Your task to perform on an android device: Turn off the flashlight Image 0: 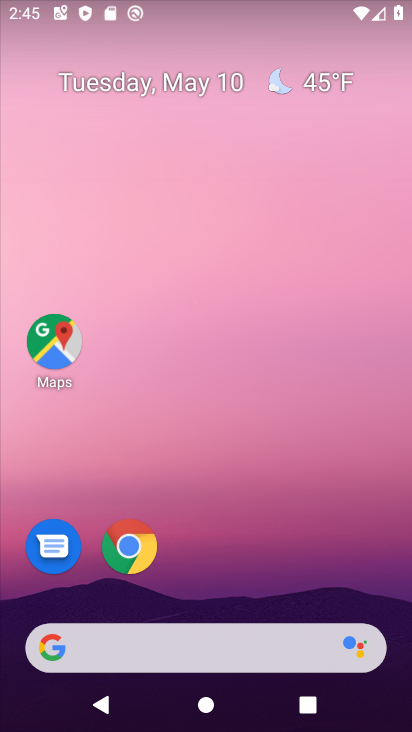
Step 0: drag from (223, 479) to (214, 0)
Your task to perform on an android device: Turn off the flashlight Image 1: 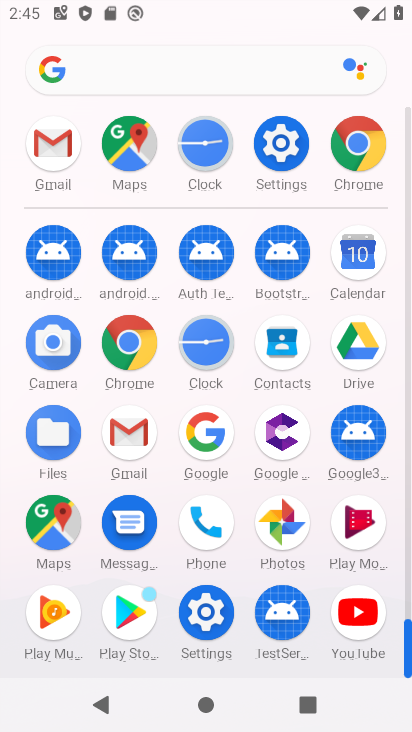
Step 1: drag from (5, 549) to (2, 282)
Your task to perform on an android device: Turn off the flashlight Image 2: 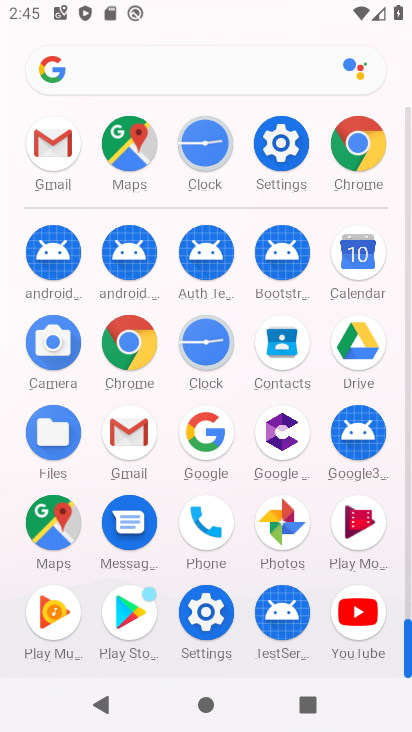
Step 2: click (206, 607)
Your task to perform on an android device: Turn off the flashlight Image 3: 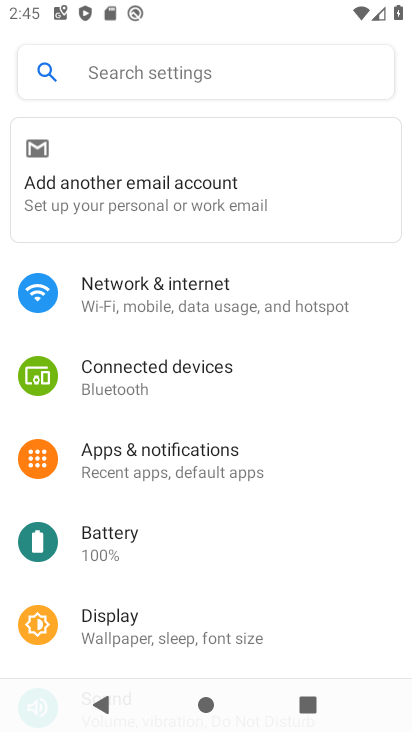
Step 3: click (233, 302)
Your task to perform on an android device: Turn off the flashlight Image 4: 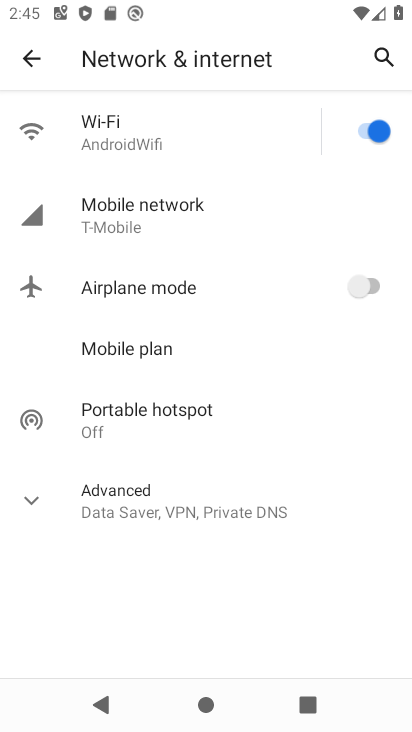
Step 4: click (49, 500)
Your task to perform on an android device: Turn off the flashlight Image 5: 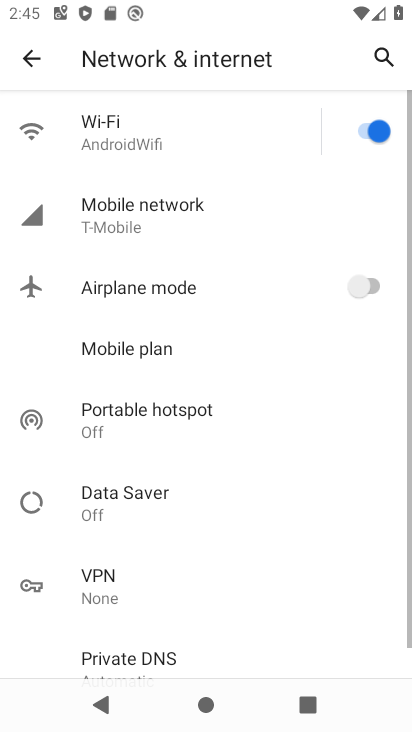
Step 5: task complete